Your task to perform on an android device: Open wifi settings Image 0: 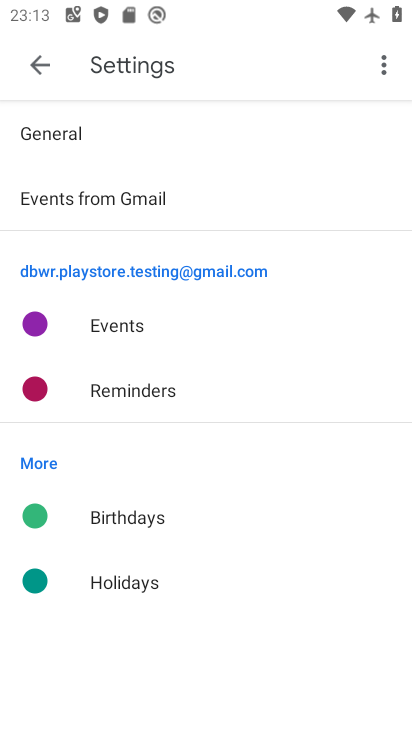
Step 0: press back button
Your task to perform on an android device: Open wifi settings Image 1: 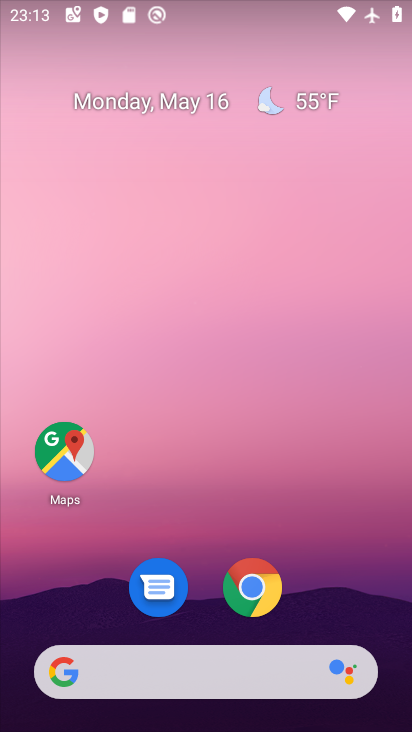
Step 1: drag from (312, 605) to (224, 3)
Your task to perform on an android device: Open wifi settings Image 2: 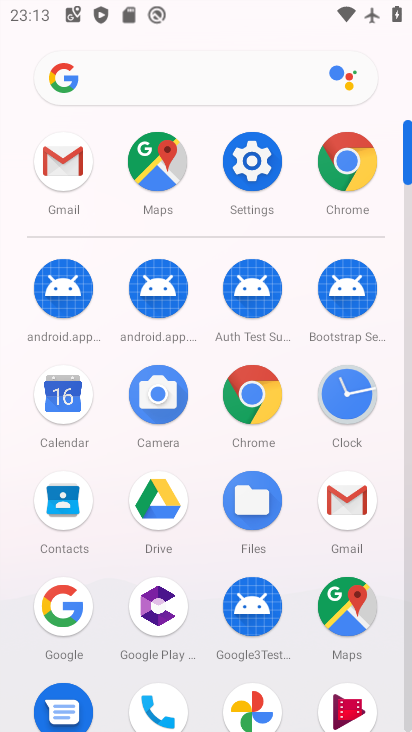
Step 2: click (250, 159)
Your task to perform on an android device: Open wifi settings Image 3: 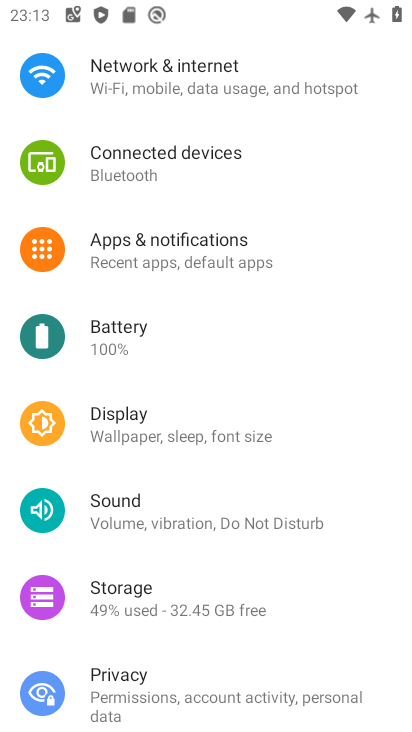
Step 3: drag from (207, 110) to (211, 480)
Your task to perform on an android device: Open wifi settings Image 4: 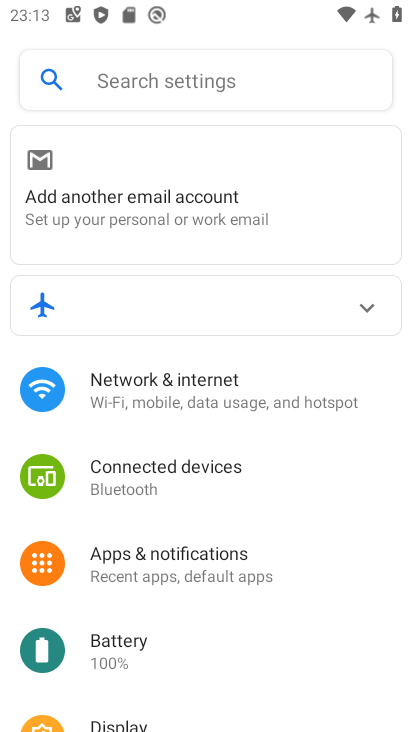
Step 4: click (166, 398)
Your task to perform on an android device: Open wifi settings Image 5: 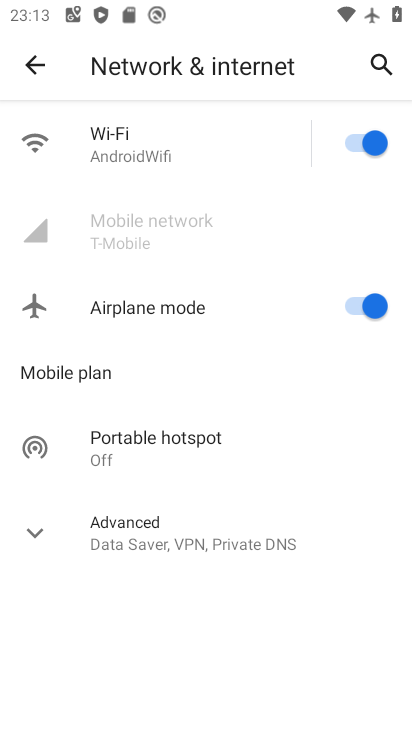
Step 5: click (140, 150)
Your task to perform on an android device: Open wifi settings Image 6: 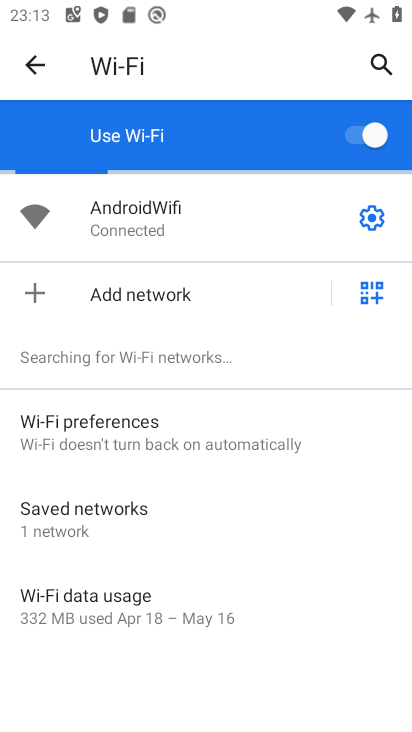
Step 6: task complete